Your task to perform on an android device: choose inbox layout in the gmail app Image 0: 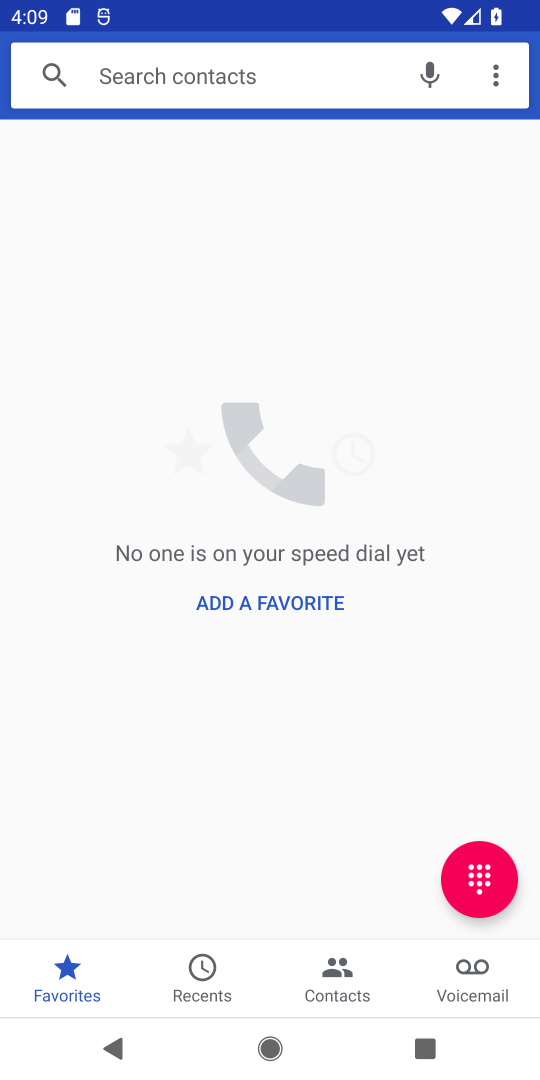
Step 0: press home button
Your task to perform on an android device: choose inbox layout in the gmail app Image 1: 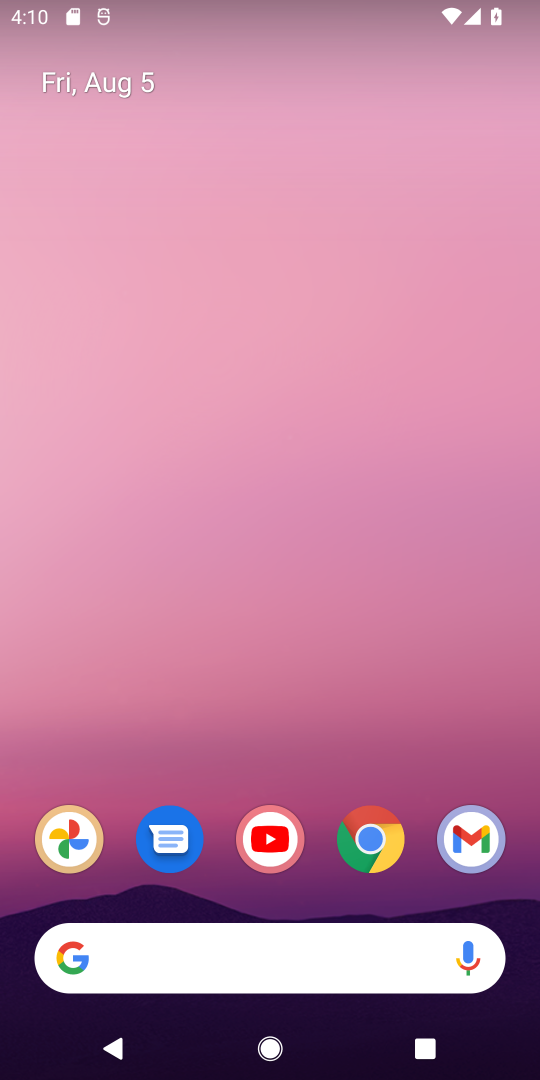
Step 1: drag from (338, 822) to (338, 277)
Your task to perform on an android device: choose inbox layout in the gmail app Image 2: 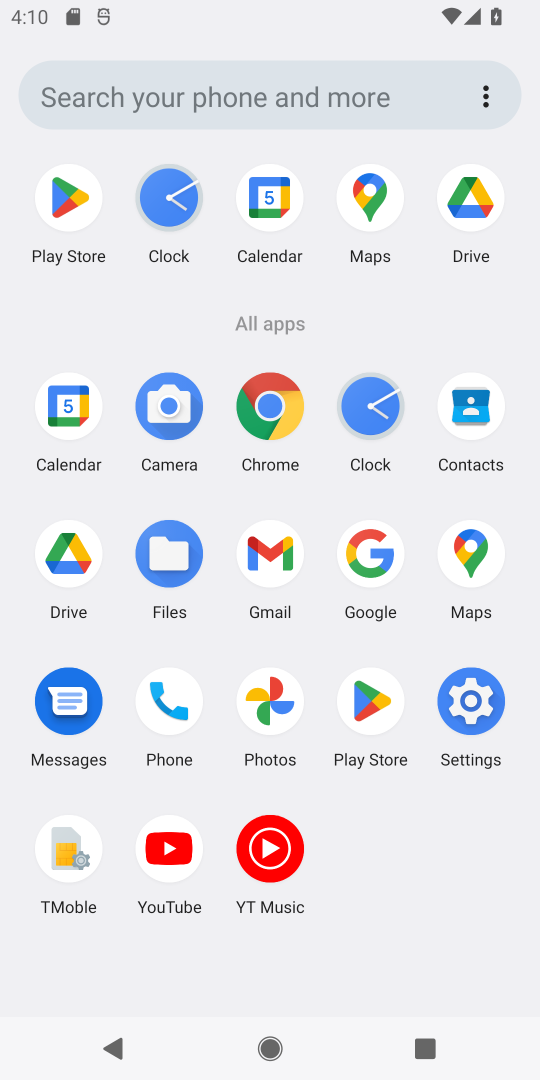
Step 2: click (279, 571)
Your task to perform on an android device: choose inbox layout in the gmail app Image 3: 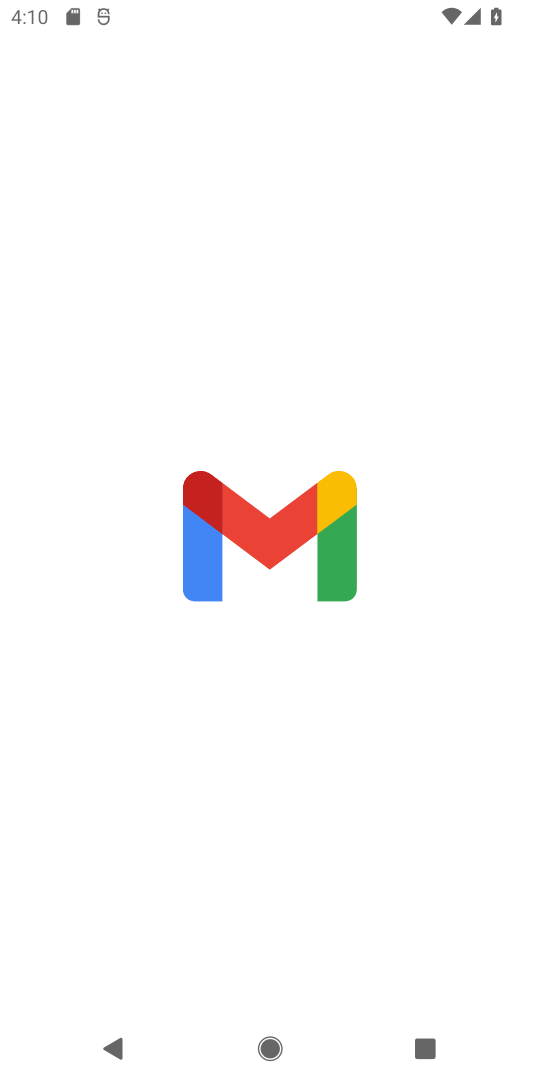
Step 3: task complete